Your task to perform on an android device: Check the news Image 0: 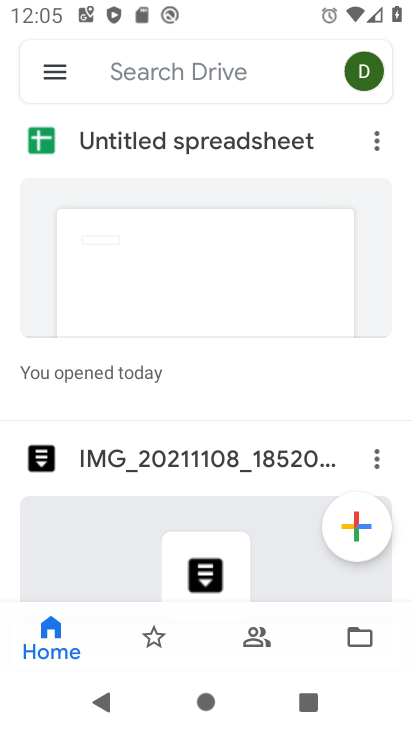
Step 0: drag from (204, 374) to (216, 24)
Your task to perform on an android device: Check the news Image 1: 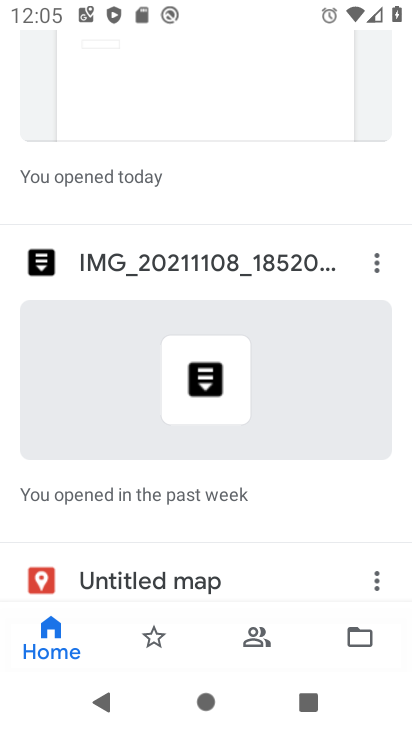
Step 1: press home button
Your task to perform on an android device: Check the news Image 2: 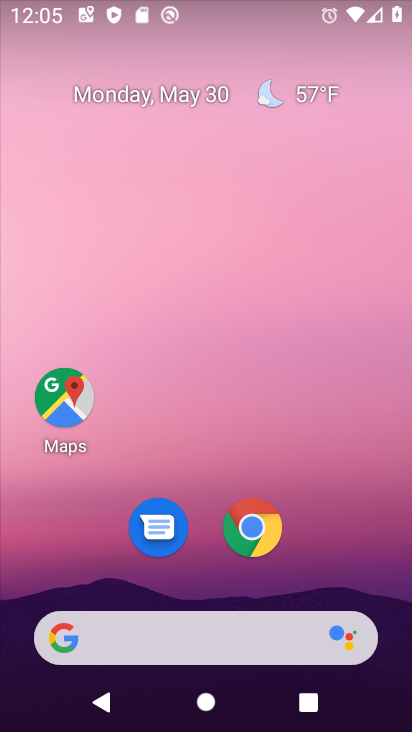
Step 2: click (162, 635)
Your task to perform on an android device: Check the news Image 3: 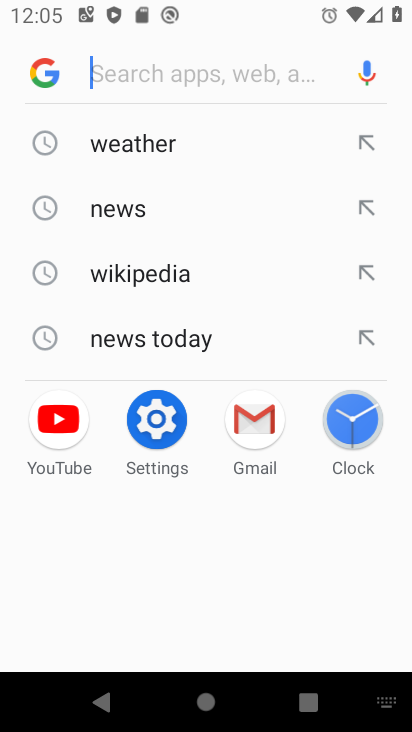
Step 3: click (161, 204)
Your task to perform on an android device: Check the news Image 4: 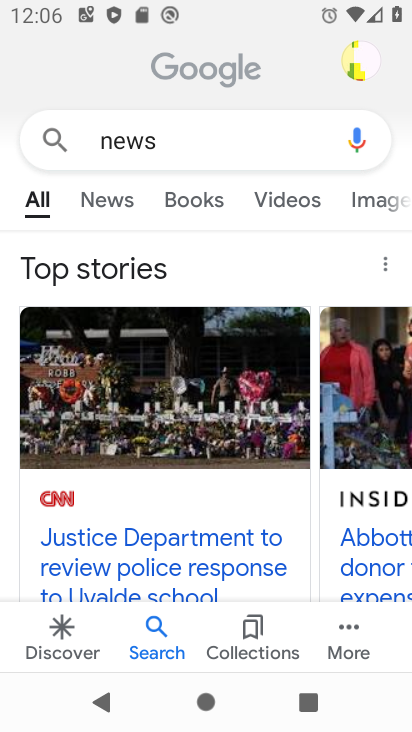
Step 4: task complete